Your task to perform on an android device: Go to Android settings Image 0: 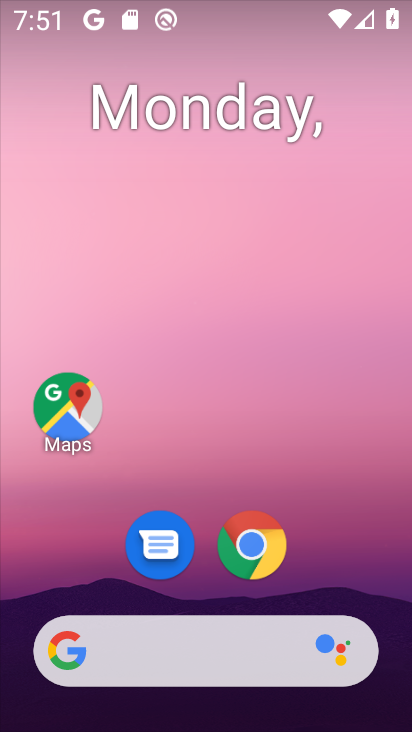
Step 0: drag from (161, 657) to (295, 141)
Your task to perform on an android device: Go to Android settings Image 1: 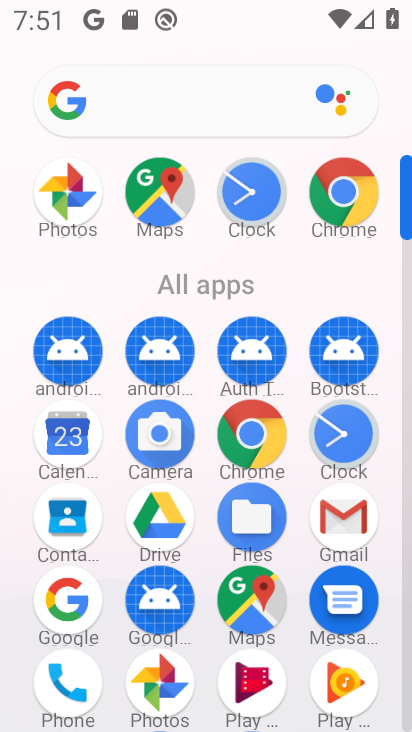
Step 1: drag from (116, 538) to (249, 100)
Your task to perform on an android device: Go to Android settings Image 2: 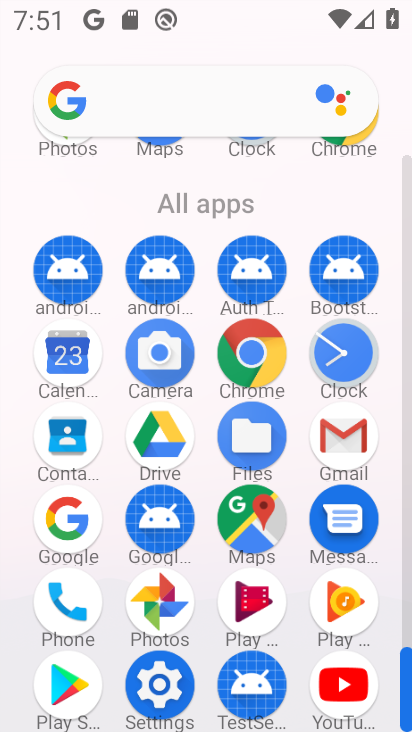
Step 2: click (165, 677)
Your task to perform on an android device: Go to Android settings Image 3: 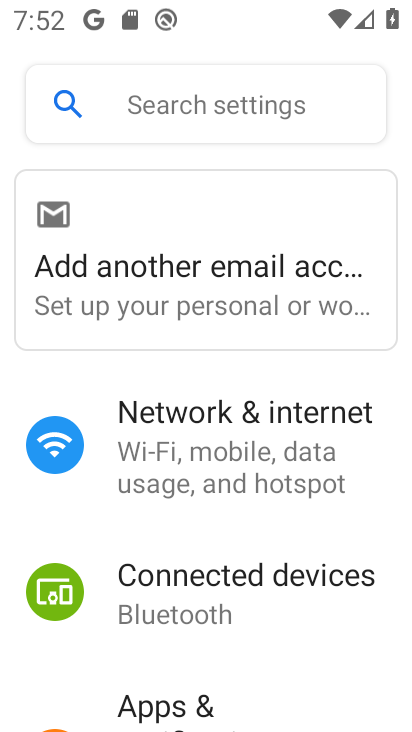
Step 3: task complete